Your task to perform on an android device: change the upload size in google photos Image 0: 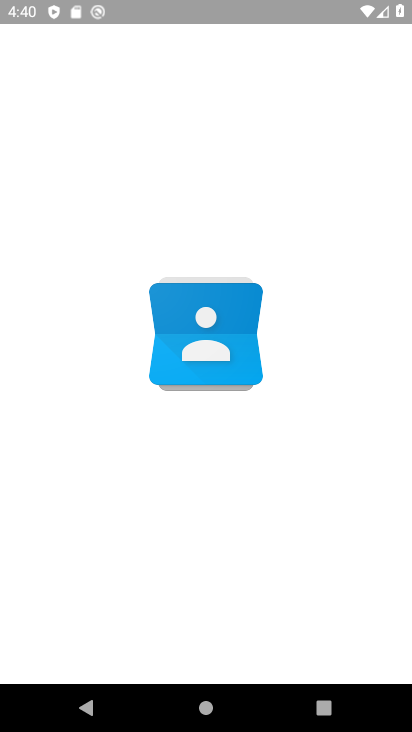
Step 0: drag from (258, 603) to (224, 96)
Your task to perform on an android device: change the upload size in google photos Image 1: 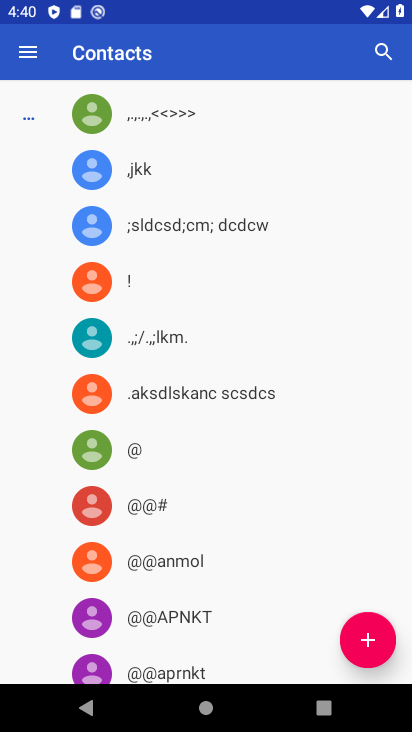
Step 1: press back button
Your task to perform on an android device: change the upload size in google photos Image 2: 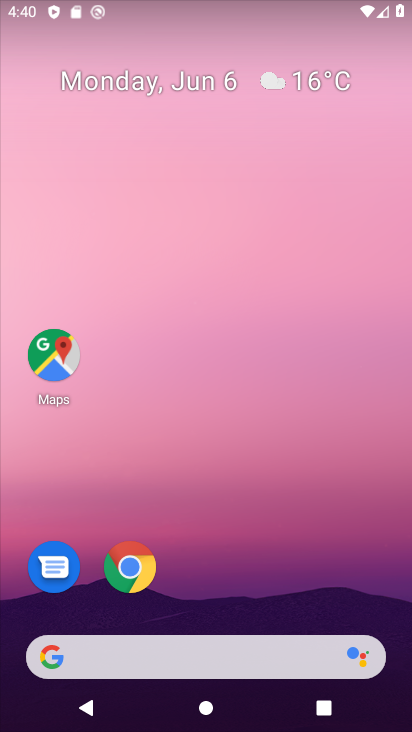
Step 2: drag from (266, 644) to (170, 72)
Your task to perform on an android device: change the upload size in google photos Image 3: 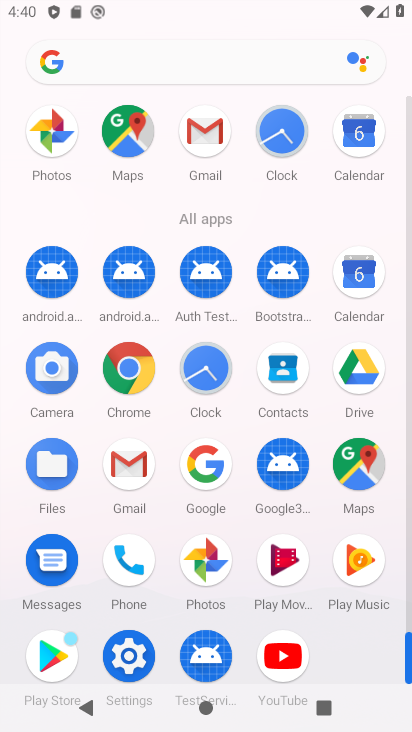
Step 3: click (200, 546)
Your task to perform on an android device: change the upload size in google photos Image 4: 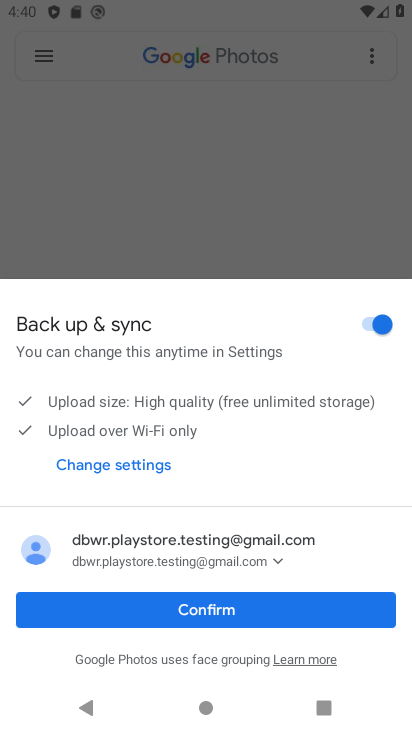
Step 4: click (264, 590)
Your task to perform on an android device: change the upload size in google photos Image 5: 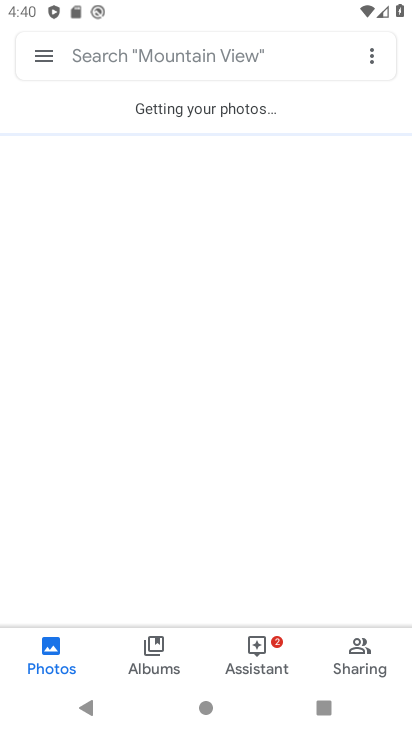
Step 5: click (49, 53)
Your task to perform on an android device: change the upload size in google photos Image 6: 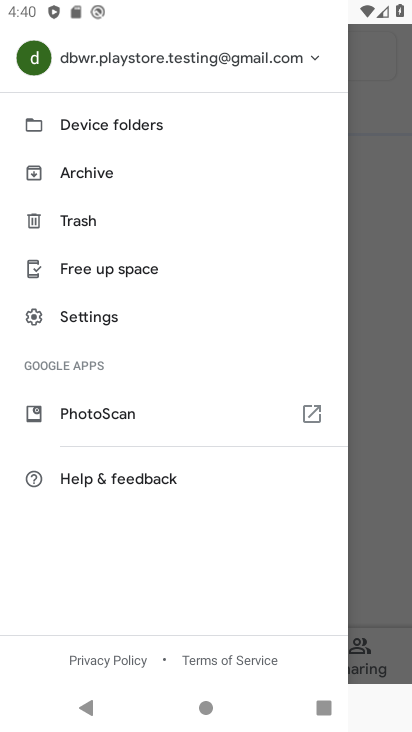
Step 6: click (370, 421)
Your task to perform on an android device: change the upload size in google photos Image 7: 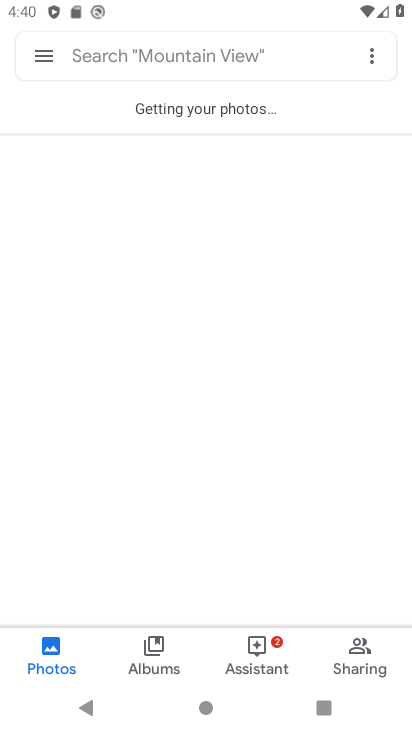
Step 7: click (42, 66)
Your task to perform on an android device: change the upload size in google photos Image 8: 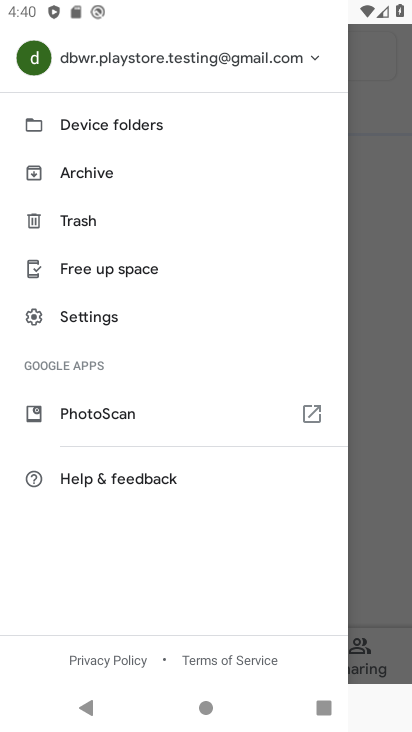
Step 8: click (89, 317)
Your task to perform on an android device: change the upload size in google photos Image 9: 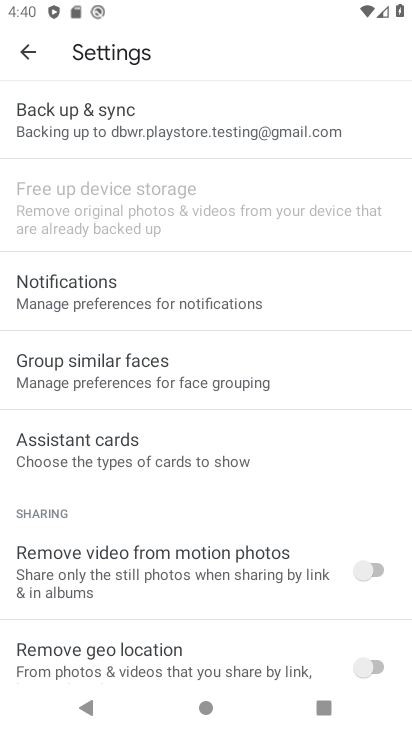
Step 9: click (87, 130)
Your task to perform on an android device: change the upload size in google photos Image 10: 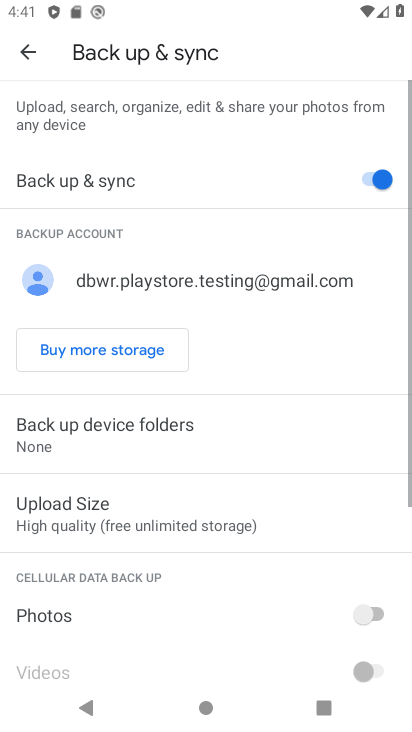
Step 10: click (82, 511)
Your task to perform on an android device: change the upload size in google photos Image 11: 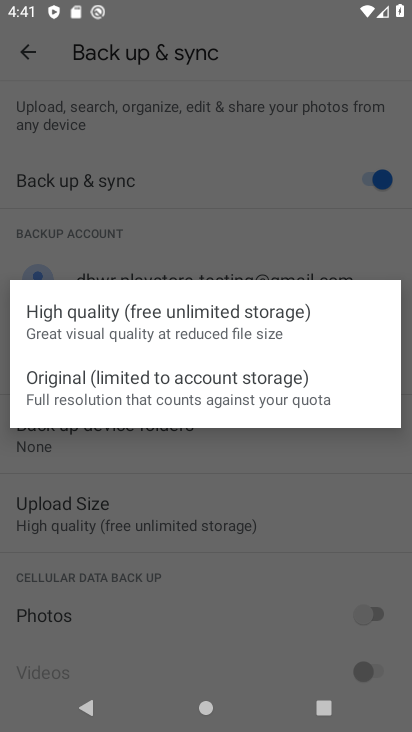
Step 11: click (51, 387)
Your task to perform on an android device: change the upload size in google photos Image 12: 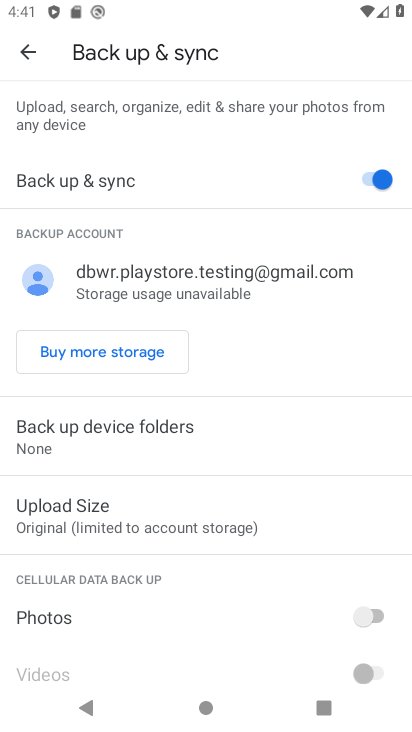
Step 12: task complete